Your task to perform on an android device: Go to privacy settings Image 0: 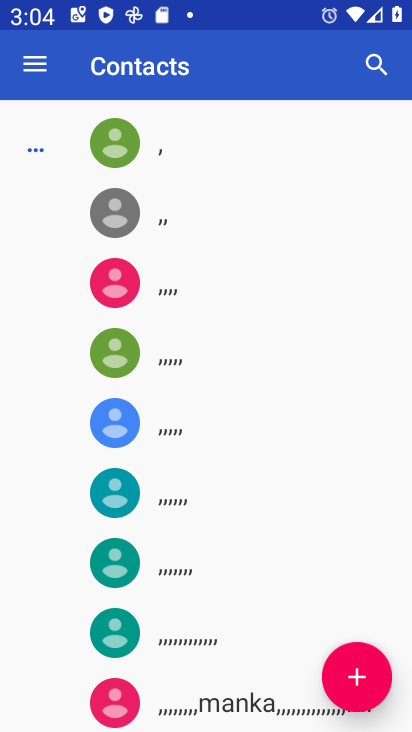
Step 0: press home button
Your task to perform on an android device: Go to privacy settings Image 1: 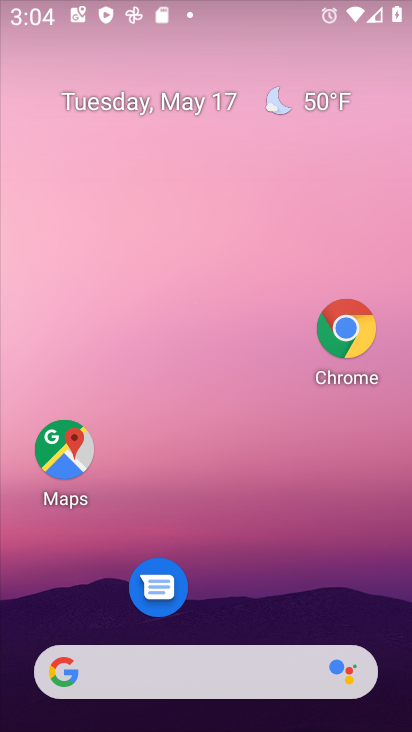
Step 1: drag from (248, 555) to (302, 36)
Your task to perform on an android device: Go to privacy settings Image 2: 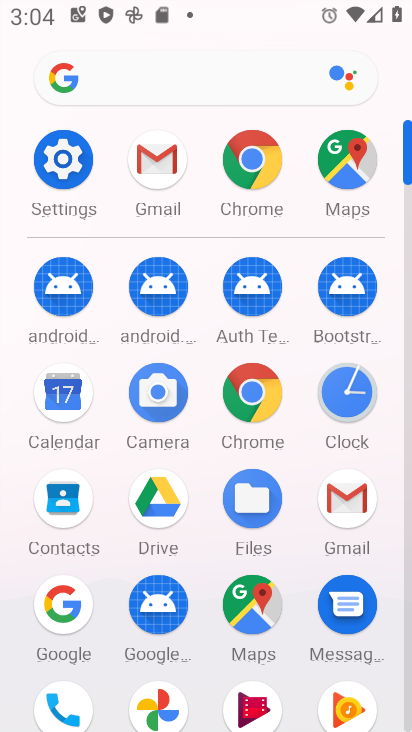
Step 2: click (60, 151)
Your task to perform on an android device: Go to privacy settings Image 3: 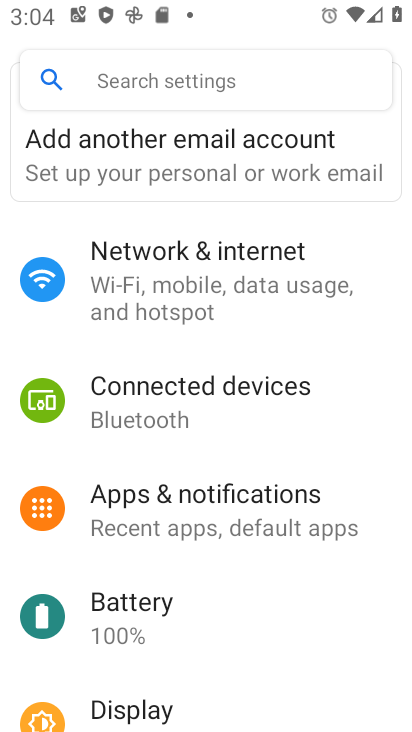
Step 3: drag from (112, 625) to (239, 276)
Your task to perform on an android device: Go to privacy settings Image 4: 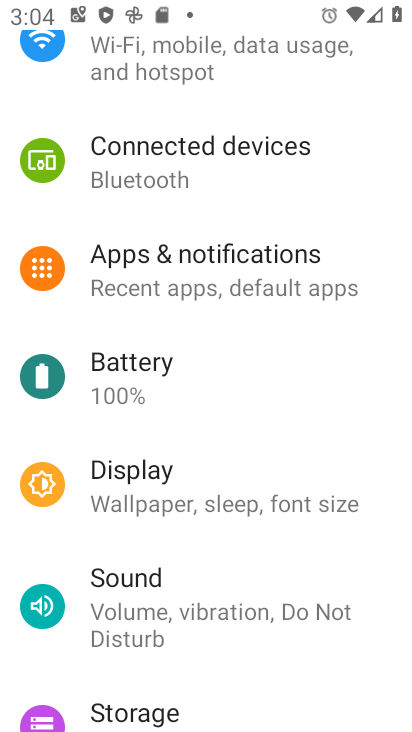
Step 4: drag from (189, 700) to (241, 182)
Your task to perform on an android device: Go to privacy settings Image 5: 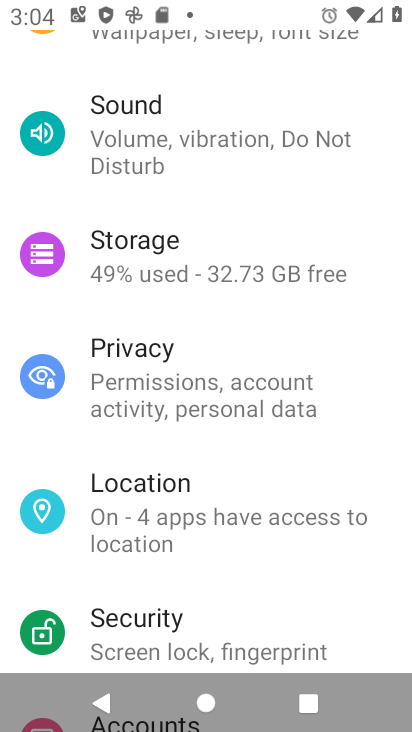
Step 5: drag from (206, 529) to (228, 424)
Your task to perform on an android device: Go to privacy settings Image 6: 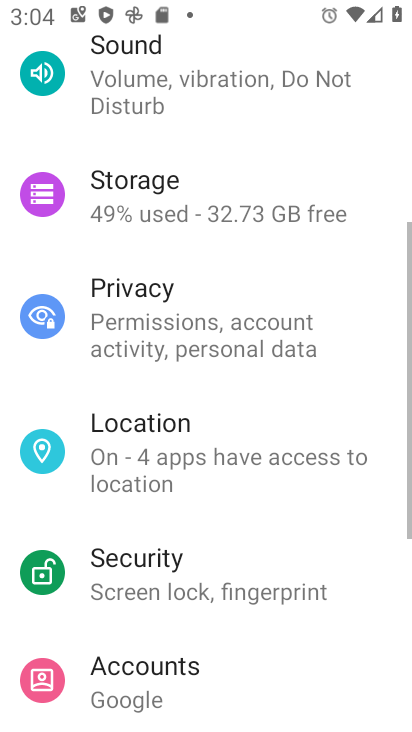
Step 6: click (228, 424)
Your task to perform on an android device: Go to privacy settings Image 7: 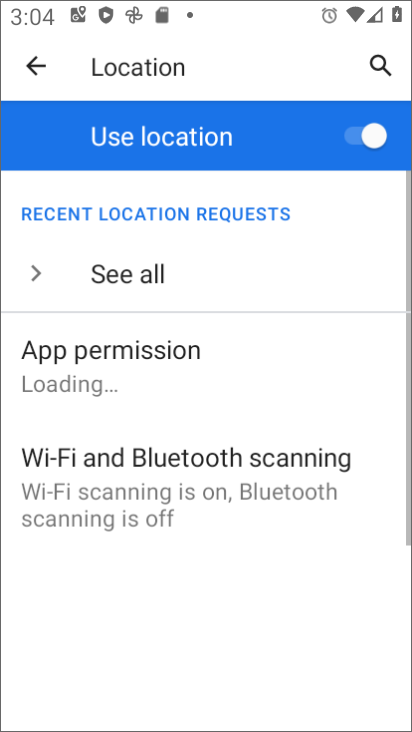
Step 7: click (230, 361)
Your task to perform on an android device: Go to privacy settings Image 8: 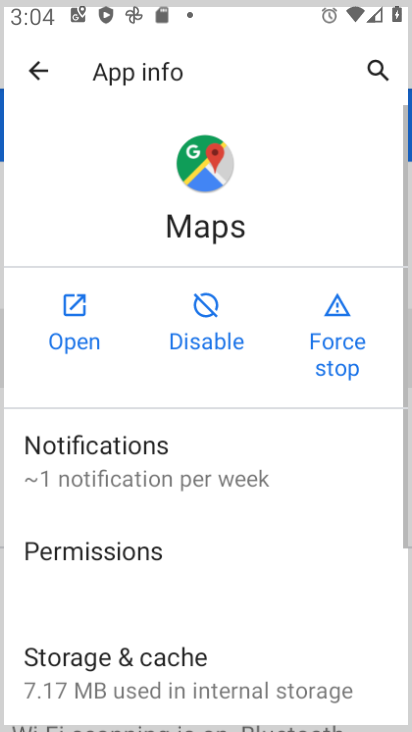
Step 8: click (43, 62)
Your task to perform on an android device: Go to privacy settings Image 9: 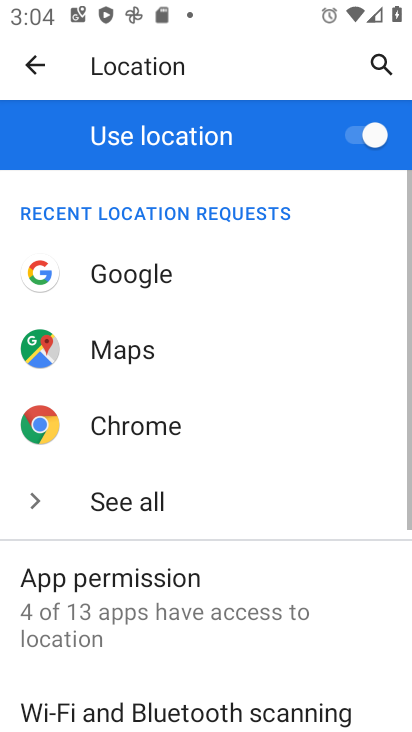
Step 9: click (34, 71)
Your task to perform on an android device: Go to privacy settings Image 10: 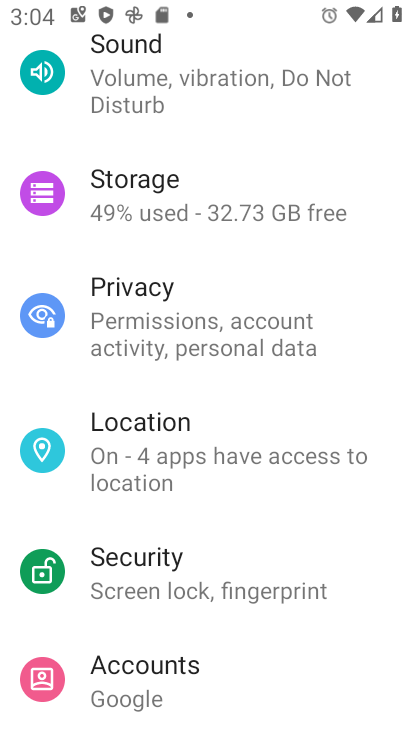
Step 10: click (179, 354)
Your task to perform on an android device: Go to privacy settings Image 11: 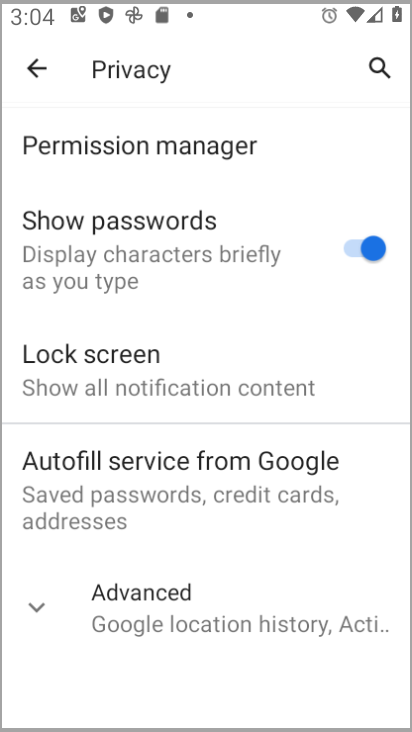
Step 11: task complete